Your task to perform on an android device: Add alienware aurora to the cart on newegg.com, then select checkout. Image 0: 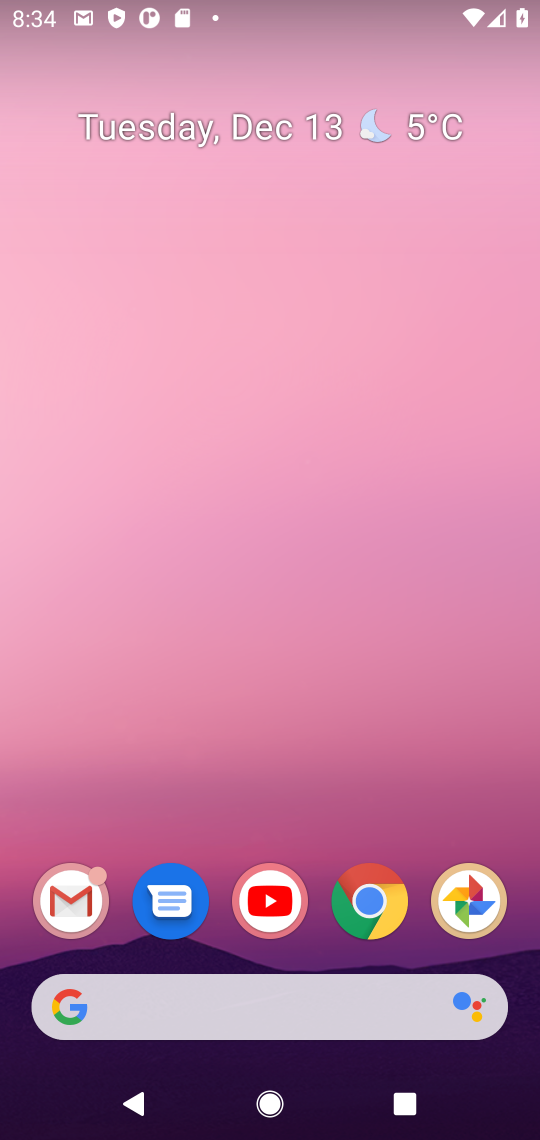
Step 0: click (349, 873)
Your task to perform on an android device: Add alienware aurora to the cart on newegg.com, then select checkout. Image 1: 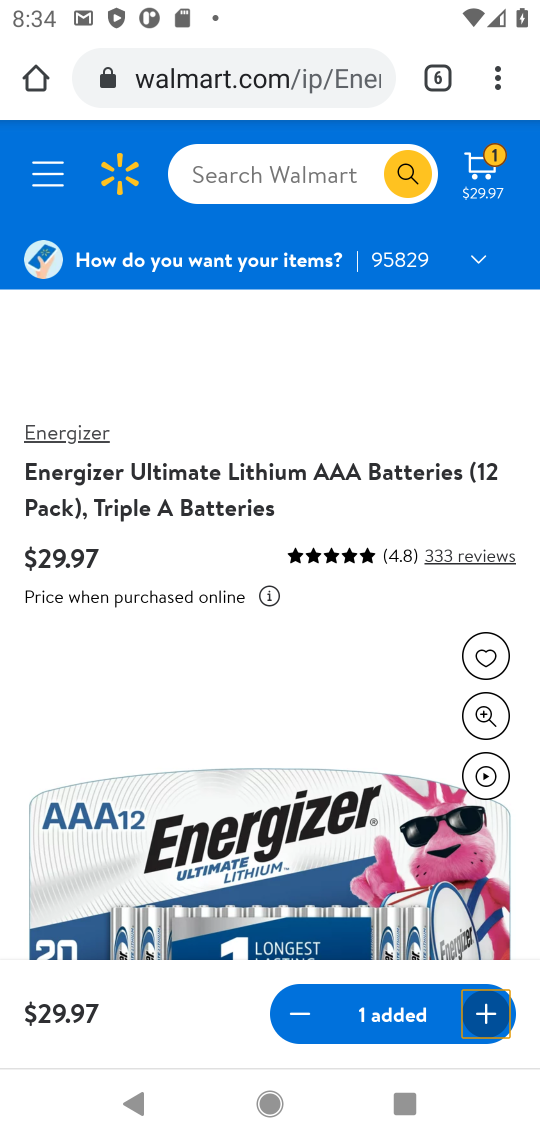
Step 1: click (438, 72)
Your task to perform on an android device: Add alienware aurora to the cart on newegg.com, then select checkout. Image 2: 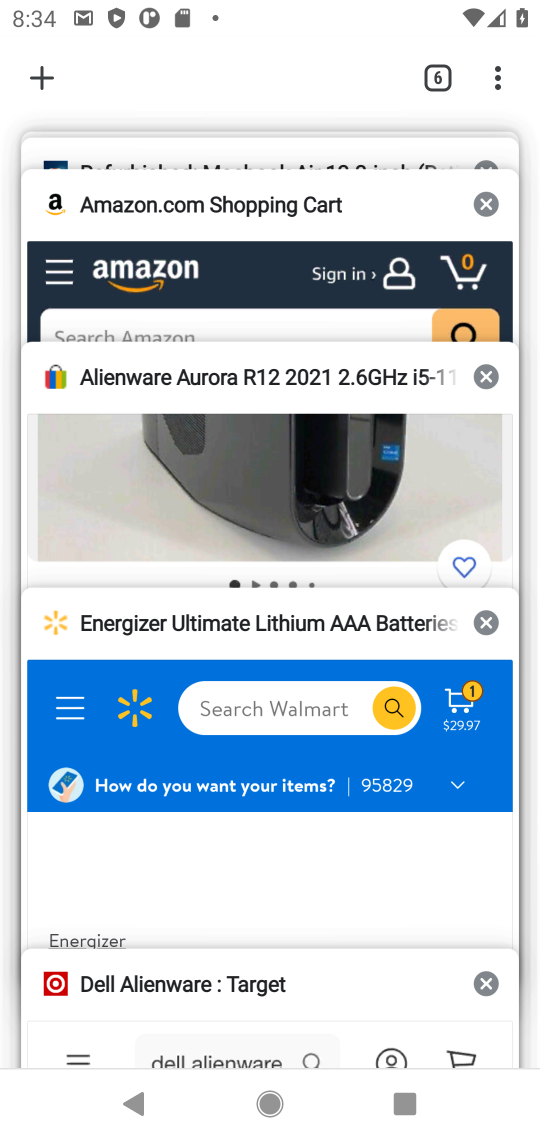
Step 2: click (225, 153)
Your task to perform on an android device: Add alienware aurora to the cart on newegg.com, then select checkout. Image 3: 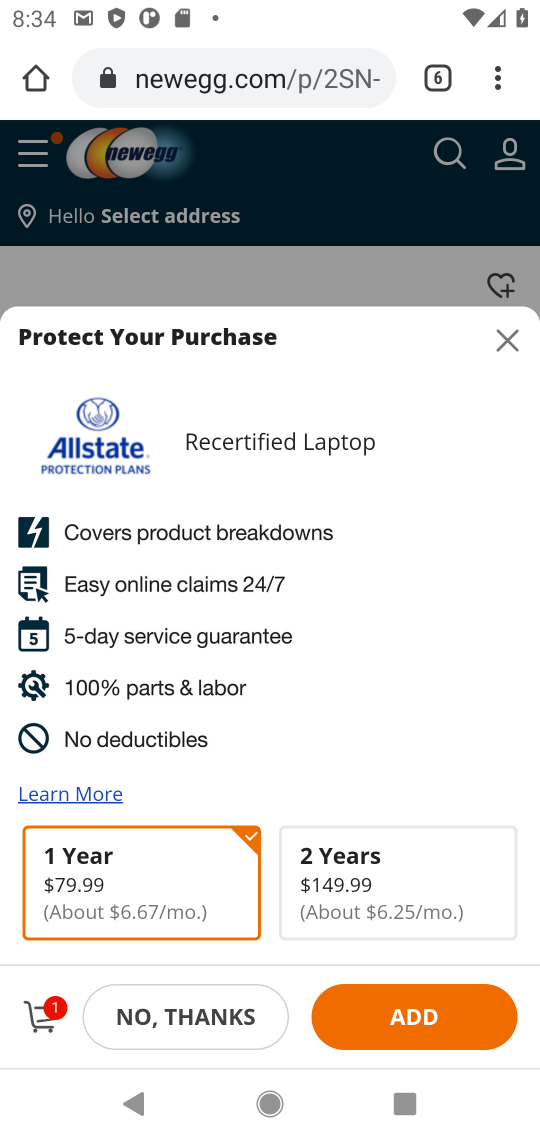
Step 3: click (499, 331)
Your task to perform on an android device: Add alienware aurora to the cart on newegg.com, then select checkout. Image 4: 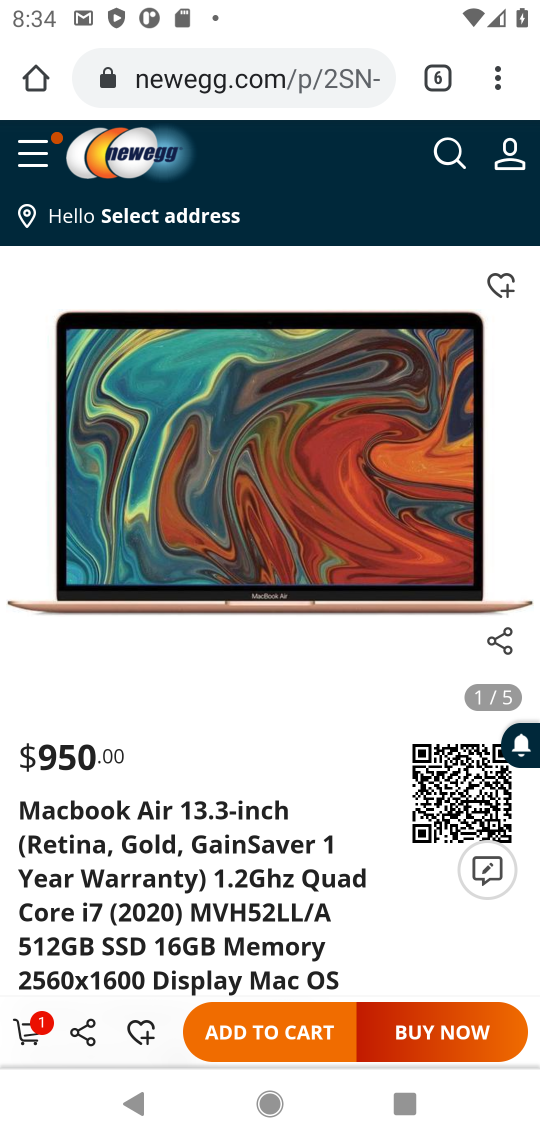
Step 4: click (449, 151)
Your task to perform on an android device: Add alienware aurora to the cart on newegg.com, then select checkout. Image 5: 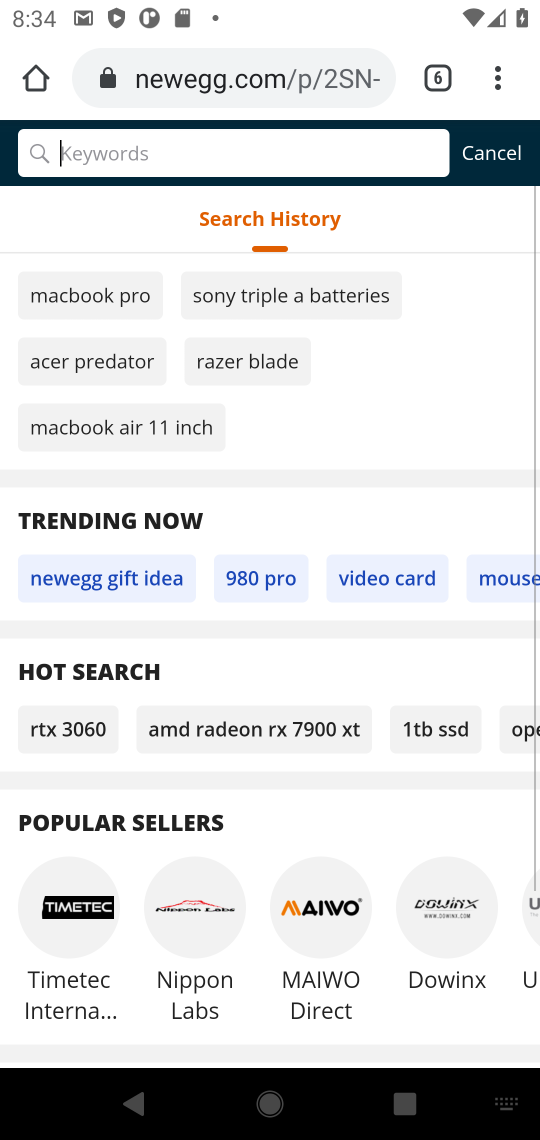
Step 5: type "alienware aurora"
Your task to perform on an android device: Add alienware aurora to the cart on newegg.com, then select checkout. Image 6: 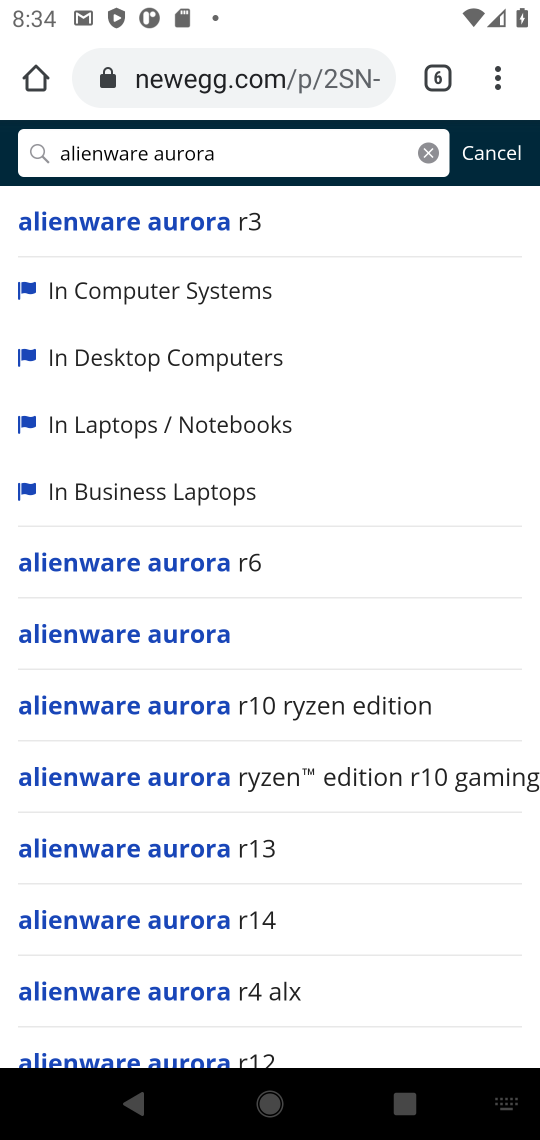
Step 6: click (163, 222)
Your task to perform on an android device: Add alienware aurora to the cart on newegg.com, then select checkout. Image 7: 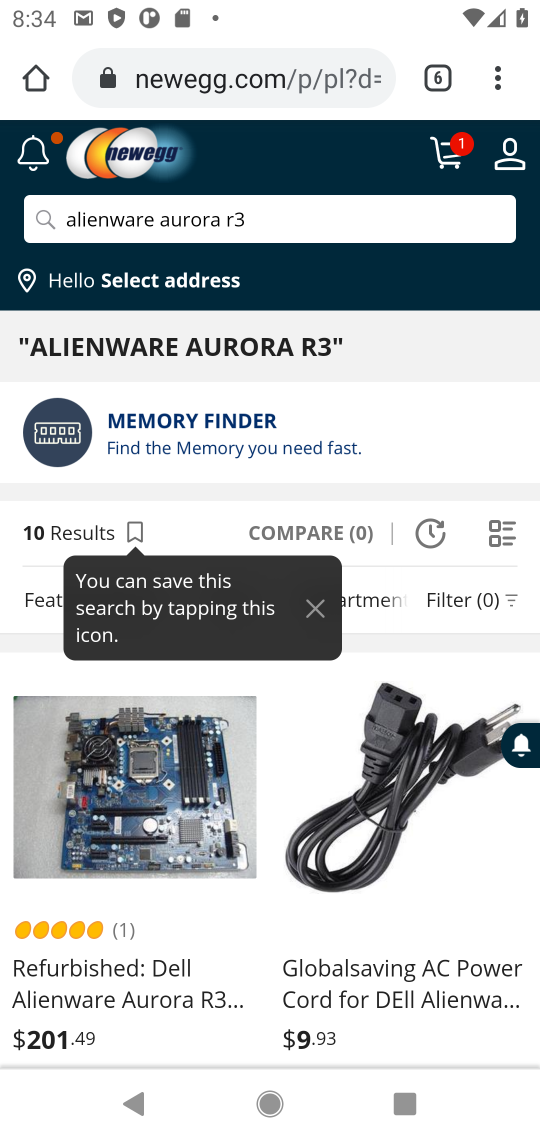
Step 7: click (103, 969)
Your task to perform on an android device: Add alienware aurora to the cart on newegg.com, then select checkout. Image 8: 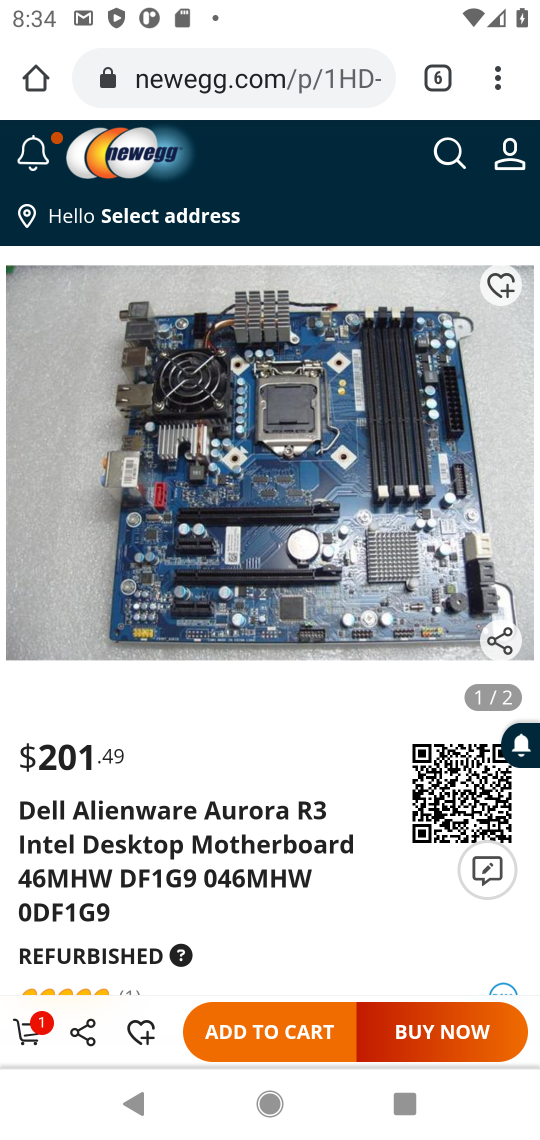
Step 8: click (265, 1020)
Your task to perform on an android device: Add alienware aurora to the cart on newegg.com, then select checkout. Image 9: 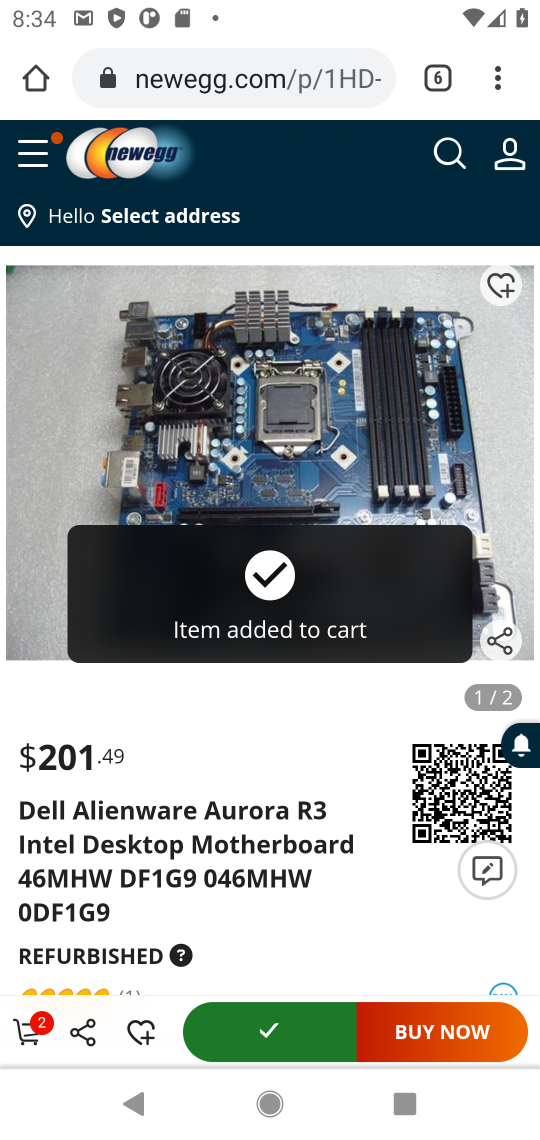
Step 9: task complete